Your task to perform on an android device: Open Yahoo.com Image 0: 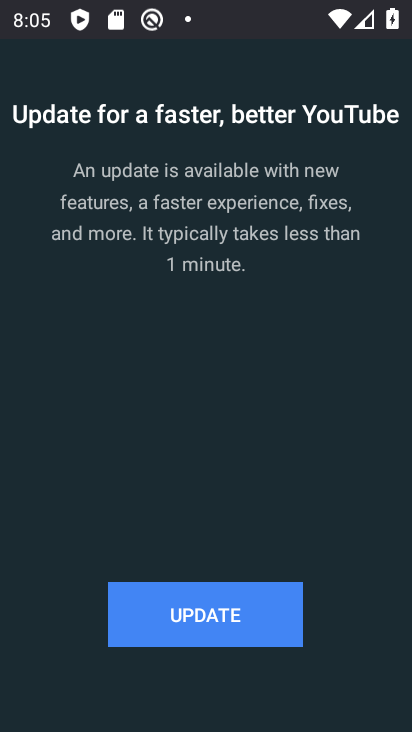
Step 0: press home button
Your task to perform on an android device: Open Yahoo.com Image 1: 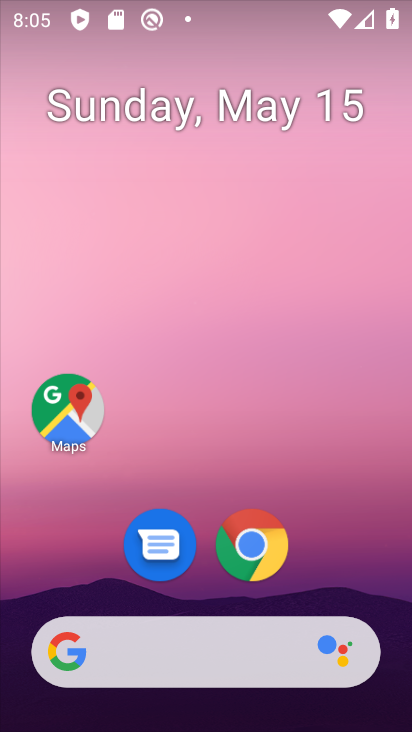
Step 1: drag from (368, 570) to (410, 38)
Your task to perform on an android device: Open Yahoo.com Image 2: 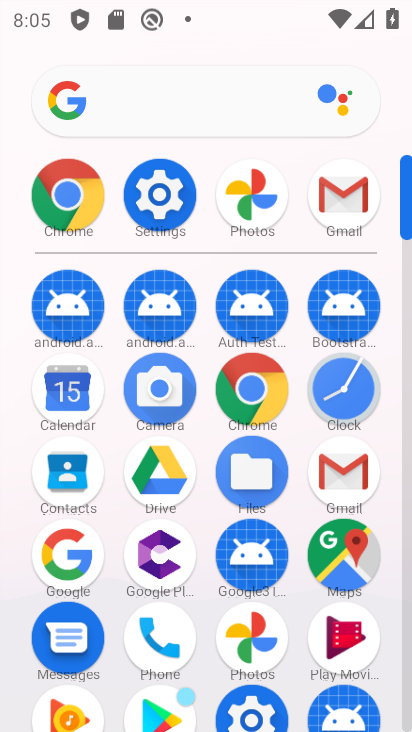
Step 2: click (259, 383)
Your task to perform on an android device: Open Yahoo.com Image 3: 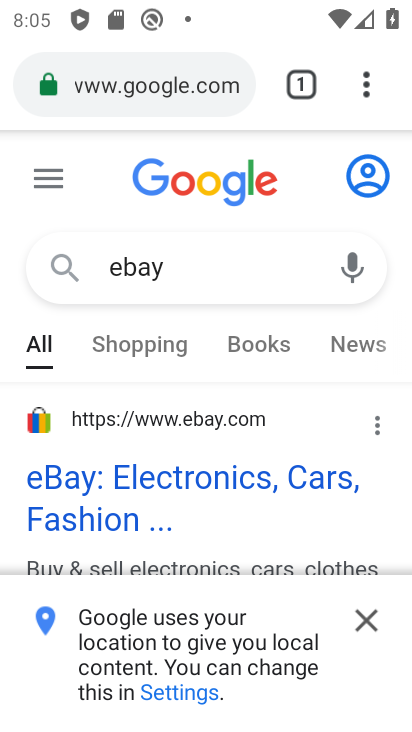
Step 3: task complete